Your task to perform on an android device: Go to calendar. Show me events next week Image 0: 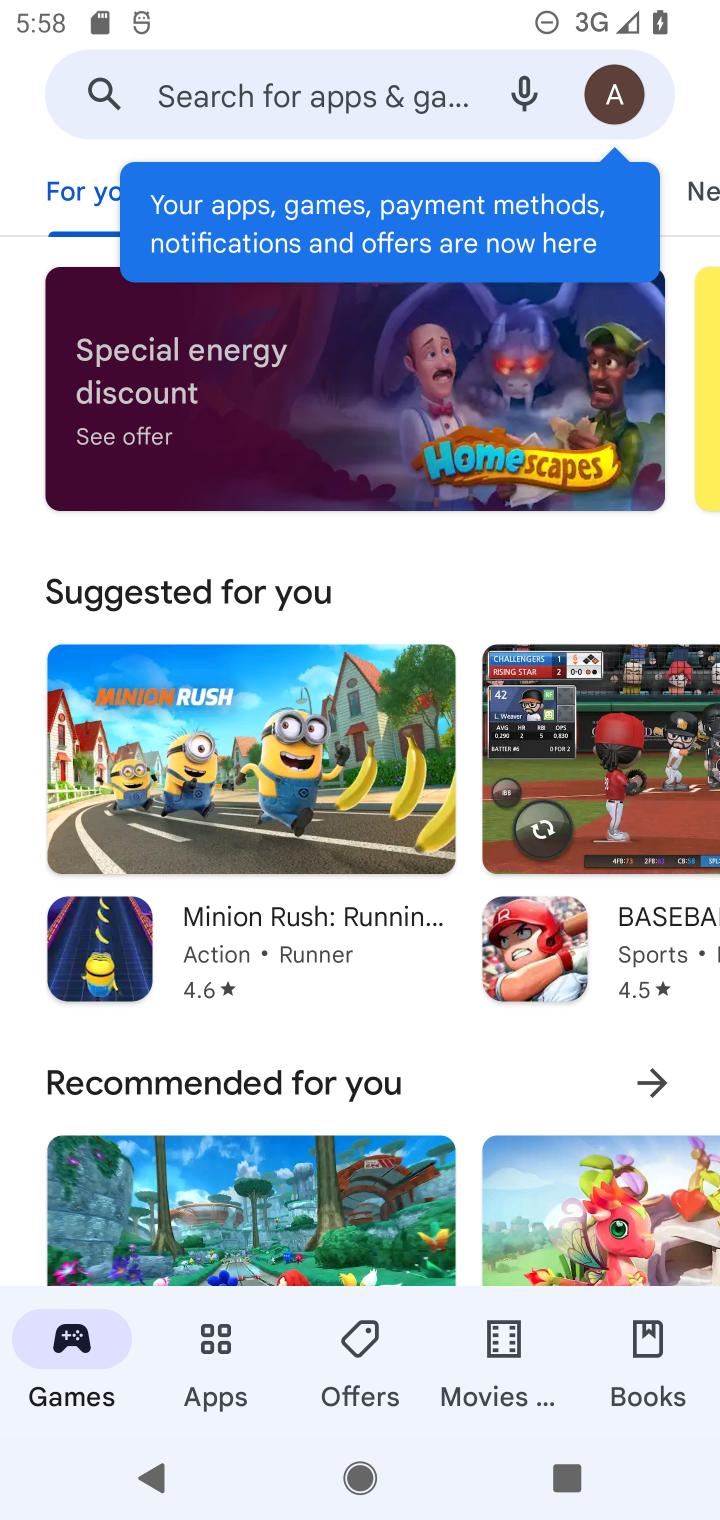
Step 0: press home button
Your task to perform on an android device: Go to calendar. Show me events next week Image 1: 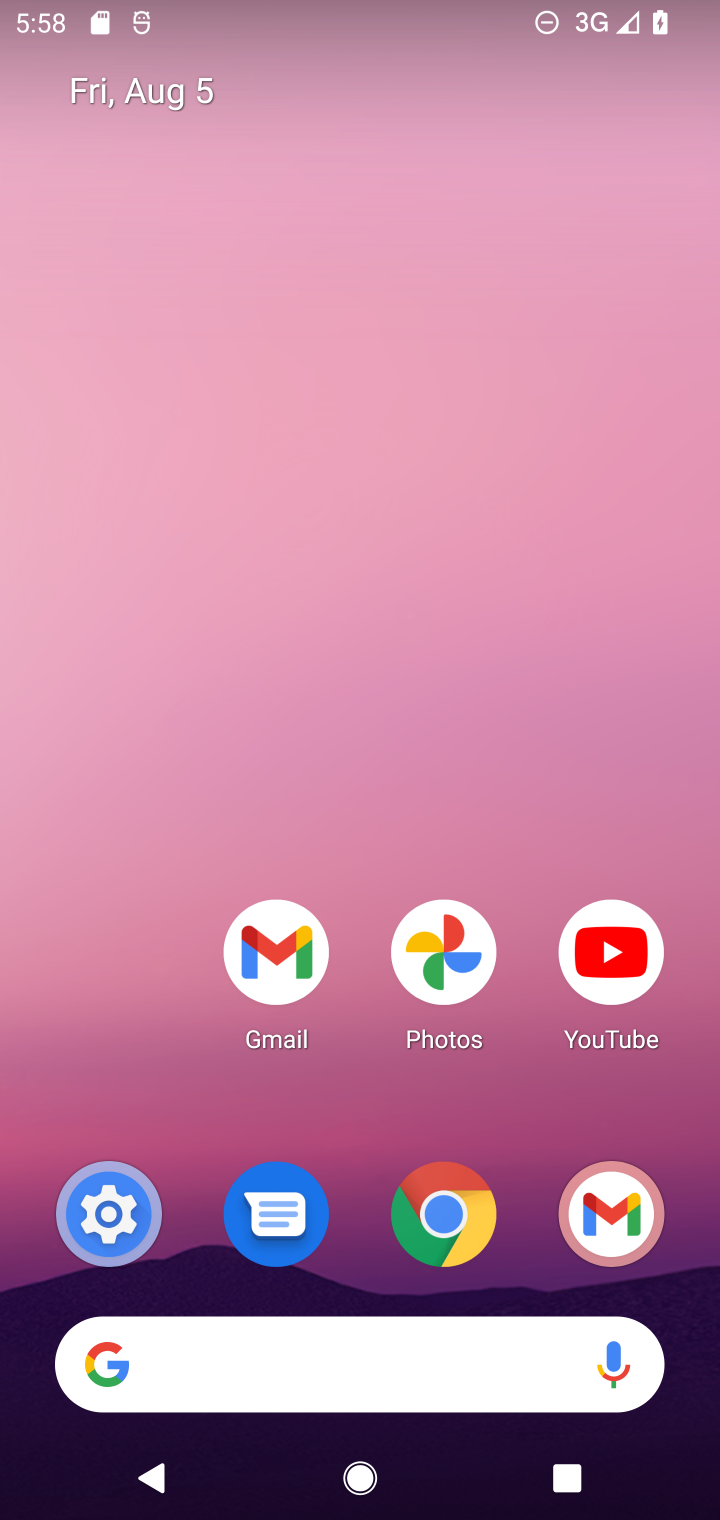
Step 1: drag from (141, 1054) to (196, 5)
Your task to perform on an android device: Go to calendar. Show me events next week Image 2: 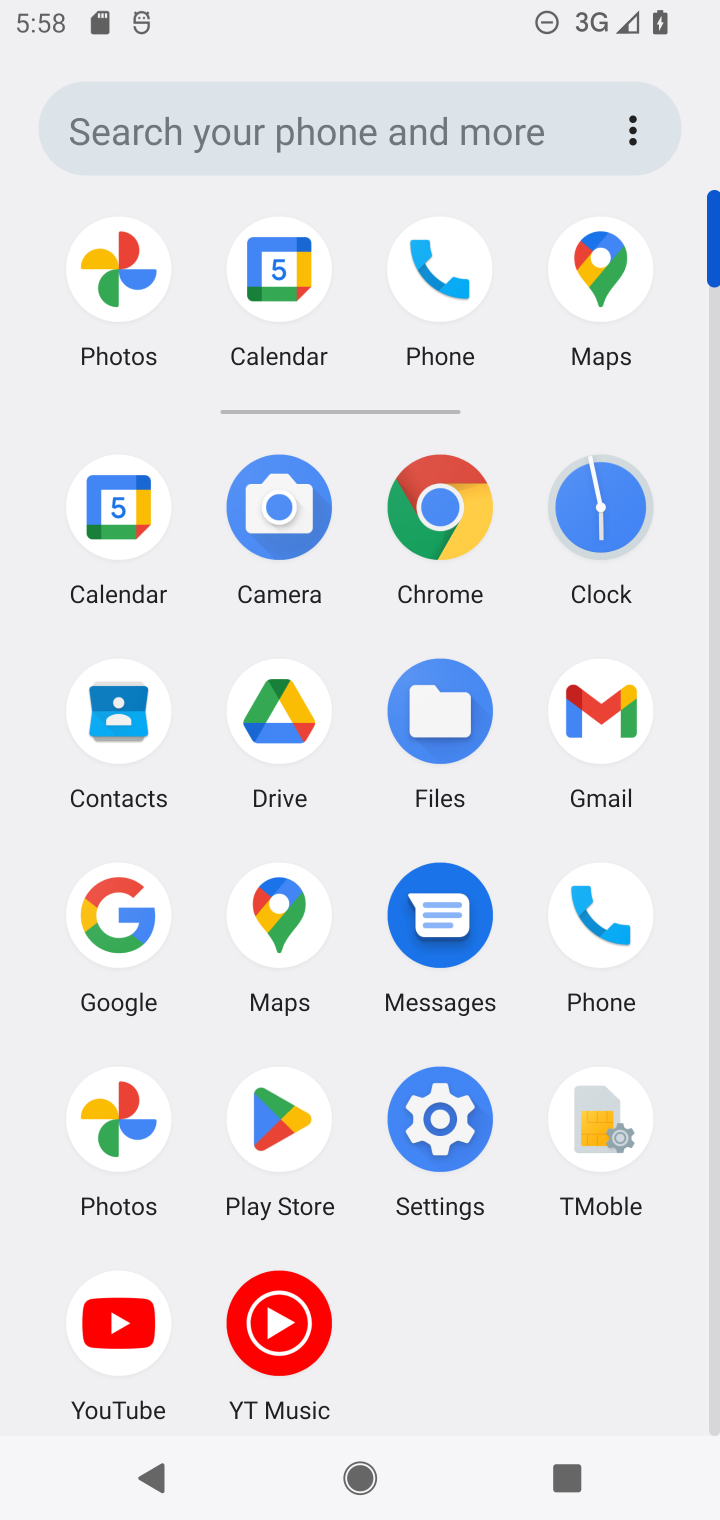
Step 2: click (114, 504)
Your task to perform on an android device: Go to calendar. Show me events next week Image 3: 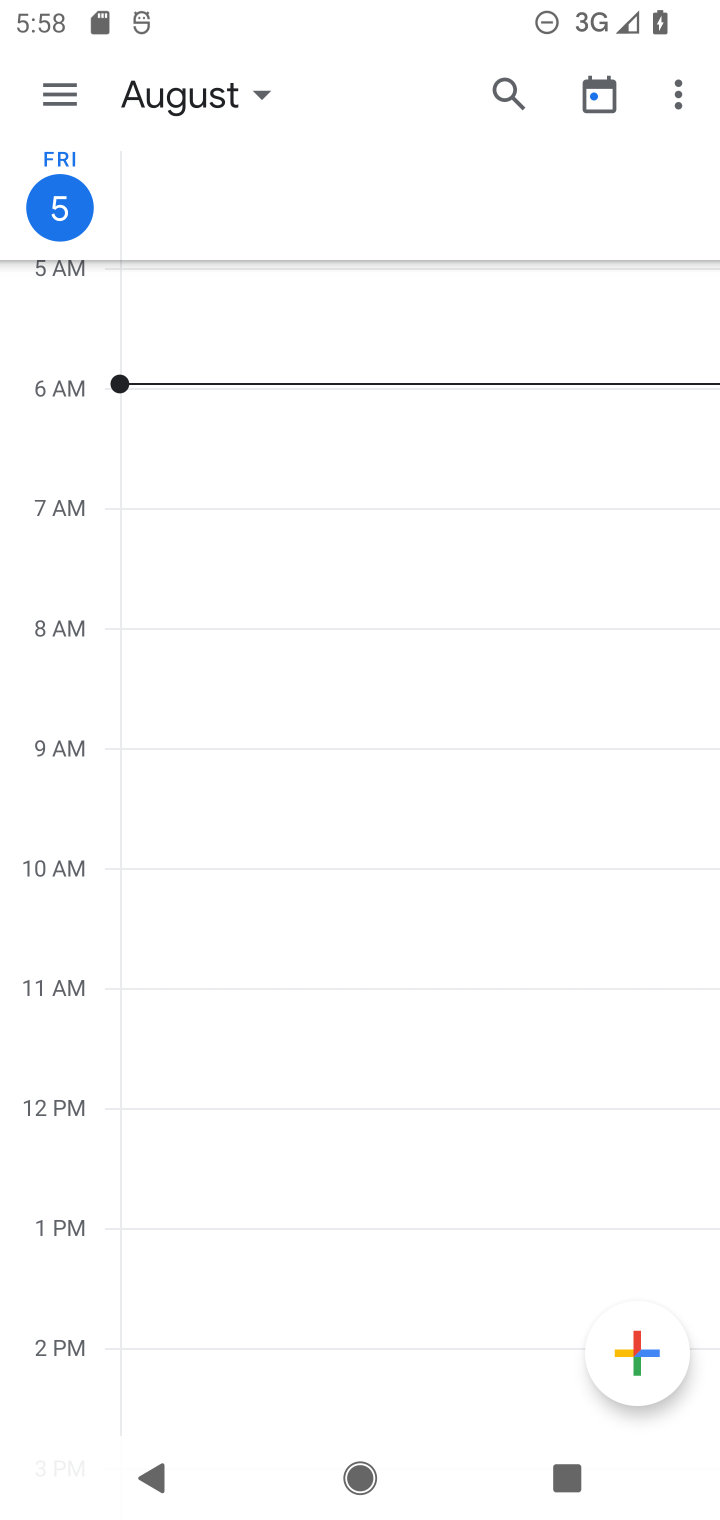
Step 3: click (63, 70)
Your task to perform on an android device: Go to calendar. Show me events next week Image 4: 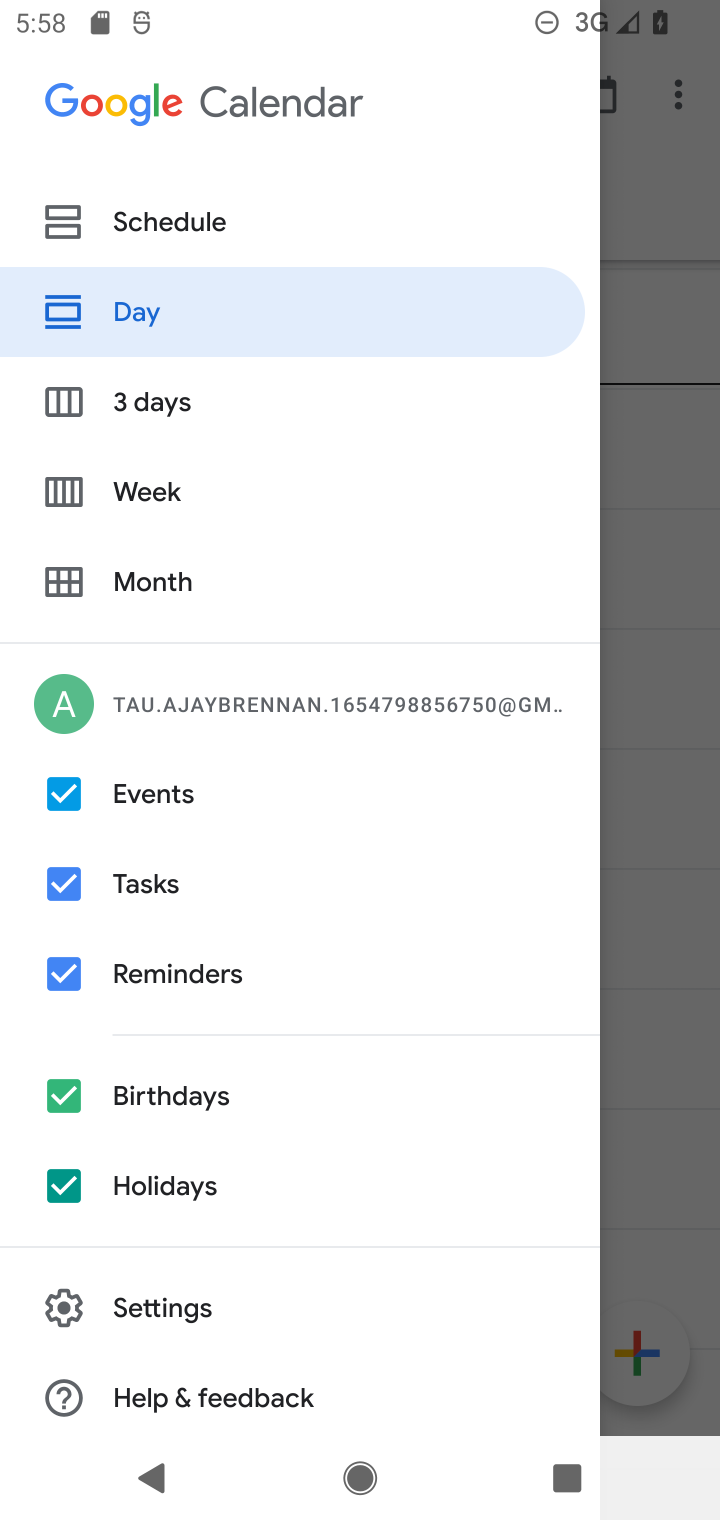
Step 4: click (51, 476)
Your task to perform on an android device: Go to calendar. Show me events next week Image 5: 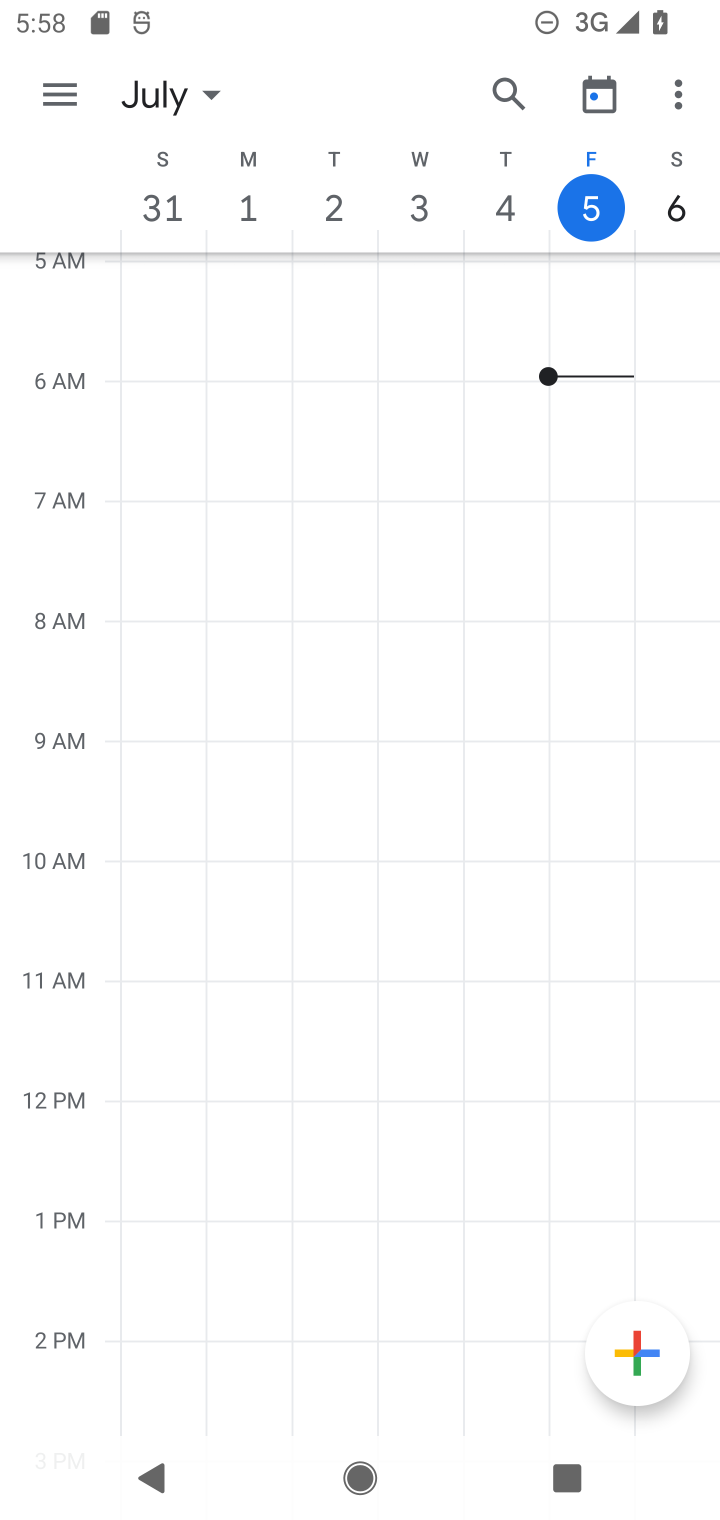
Step 5: task complete